Your task to perform on an android device: See recent photos Image 0: 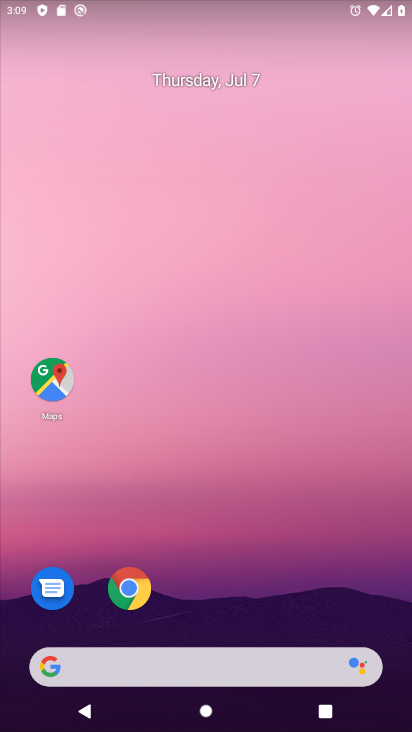
Step 0: drag from (233, 517) to (239, 246)
Your task to perform on an android device: See recent photos Image 1: 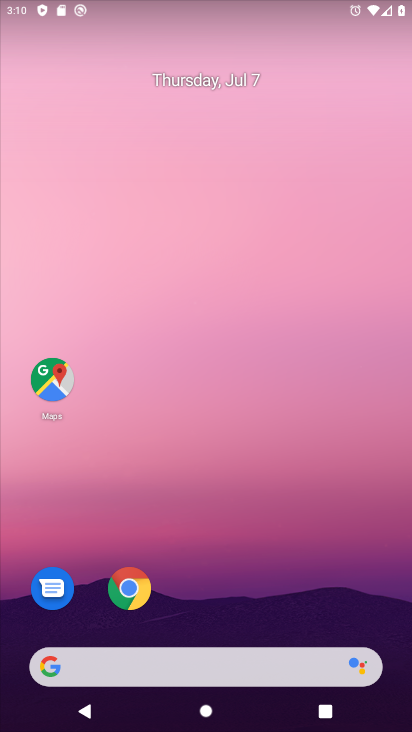
Step 1: drag from (198, 639) to (213, 185)
Your task to perform on an android device: See recent photos Image 2: 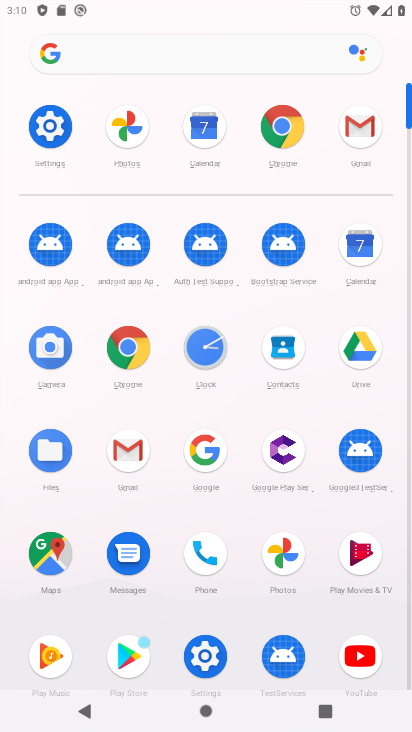
Step 2: click (277, 551)
Your task to perform on an android device: See recent photos Image 3: 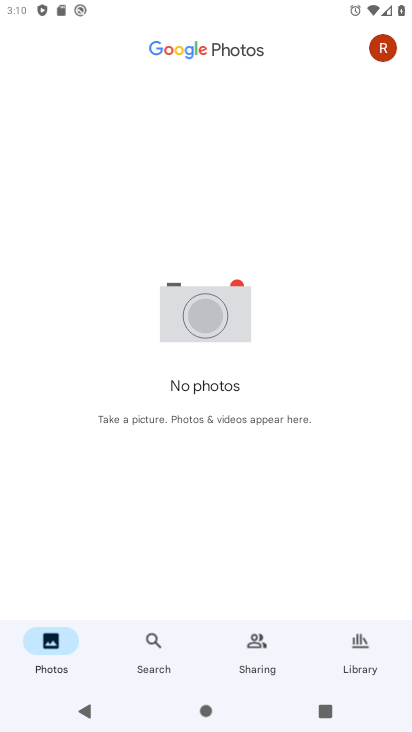
Step 3: task complete